Your task to perform on an android device: Open Chrome and go to settings Image 0: 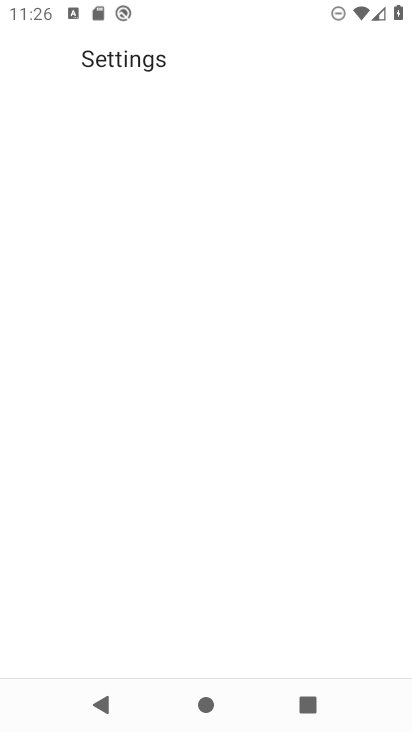
Step 0: click (127, 548)
Your task to perform on an android device: Open Chrome and go to settings Image 1: 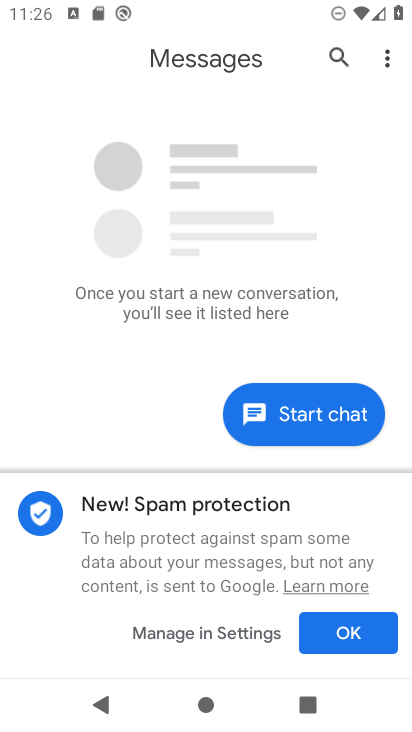
Step 1: press home button
Your task to perform on an android device: Open Chrome and go to settings Image 2: 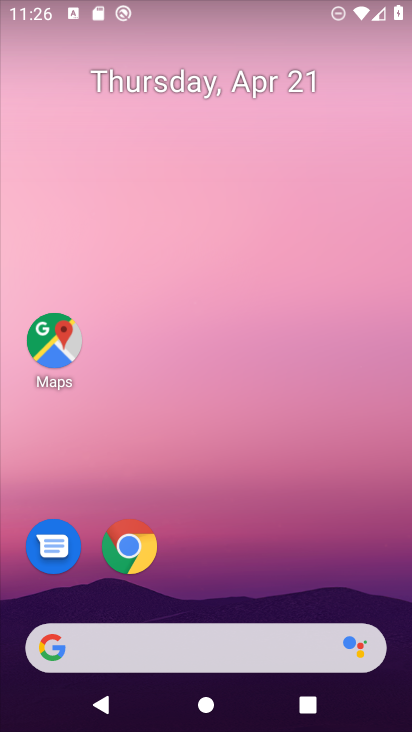
Step 2: click (136, 548)
Your task to perform on an android device: Open Chrome and go to settings Image 3: 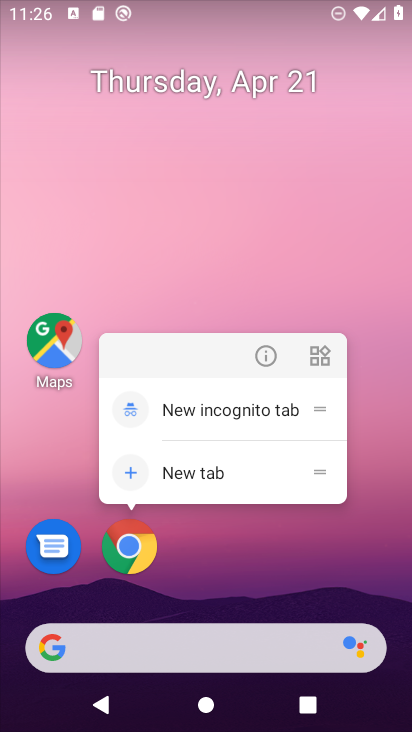
Step 3: click (136, 548)
Your task to perform on an android device: Open Chrome and go to settings Image 4: 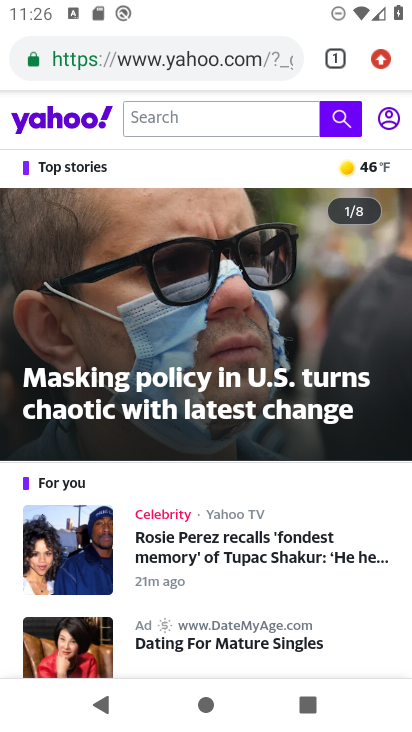
Step 4: click (378, 58)
Your task to perform on an android device: Open Chrome and go to settings Image 5: 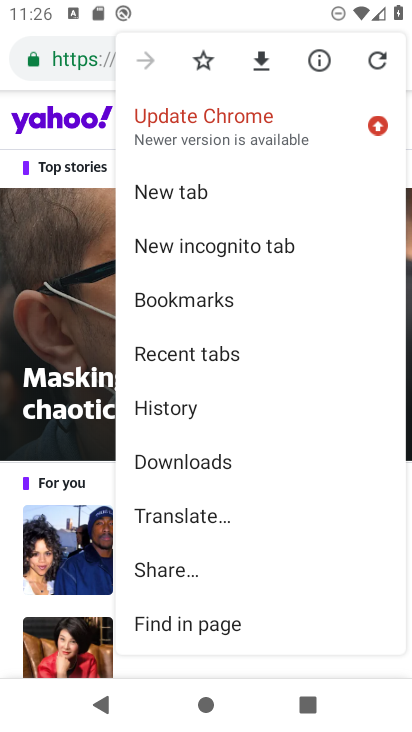
Step 5: drag from (268, 594) to (238, 318)
Your task to perform on an android device: Open Chrome and go to settings Image 6: 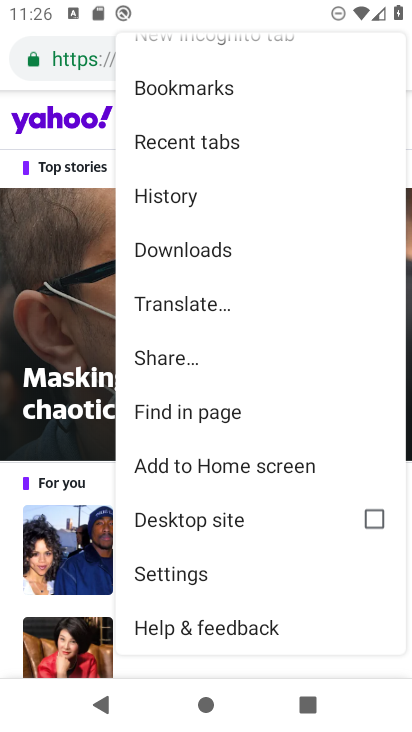
Step 6: click (189, 567)
Your task to perform on an android device: Open Chrome and go to settings Image 7: 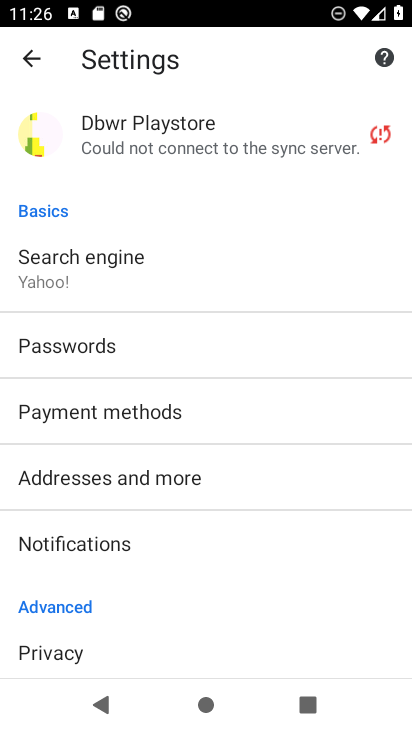
Step 7: task complete